Your task to perform on an android device: Open the calendar app, open the side menu, and click the "Day" option Image 0: 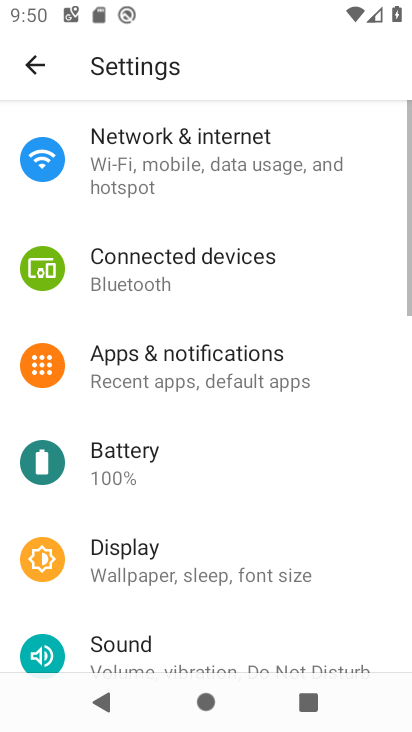
Step 0: press home button
Your task to perform on an android device: Open the calendar app, open the side menu, and click the "Day" option Image 1: 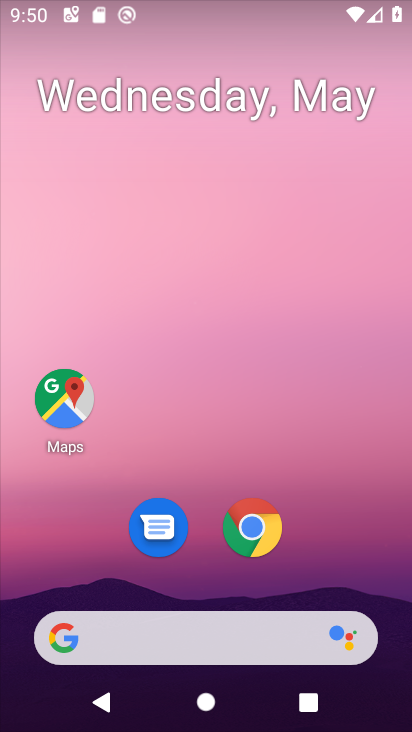
Step 1: drag from (318, 506) to (332, 104)
Your task to perform on an android device: Open the calendar app, open the side menu, and click the "Day" option Image 2: 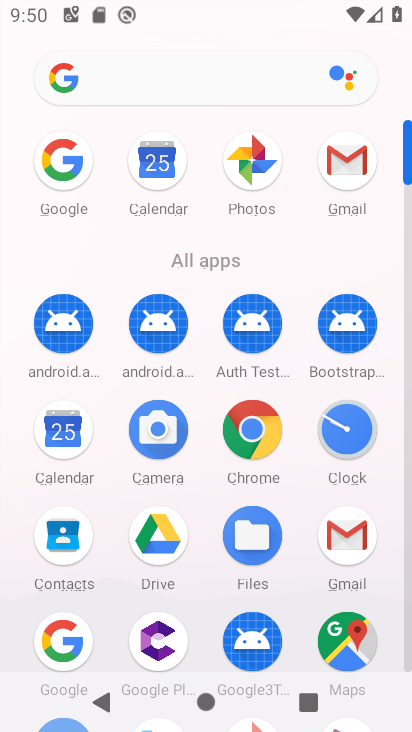
Step 2: click (54, 430)
Your task to perform on an android device: Open the calendar app, open the side menu, and click the "Day" option Image 3: 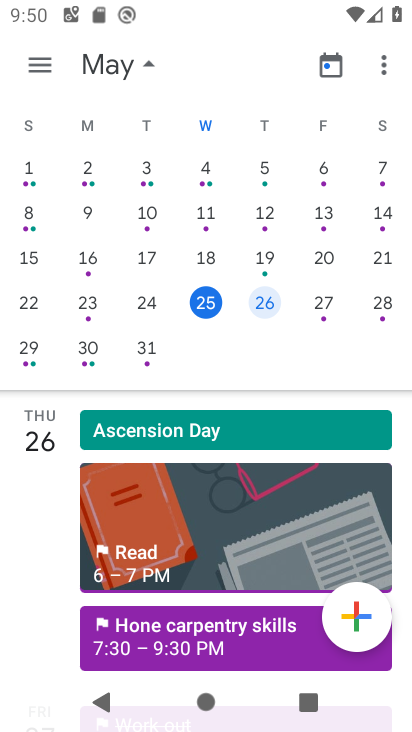
Step 3: drag from (45, 58) to (271, 128)
Your task to perform on an android device: Open the calendar app, open the side menu, and click the "Day" option Image 4: 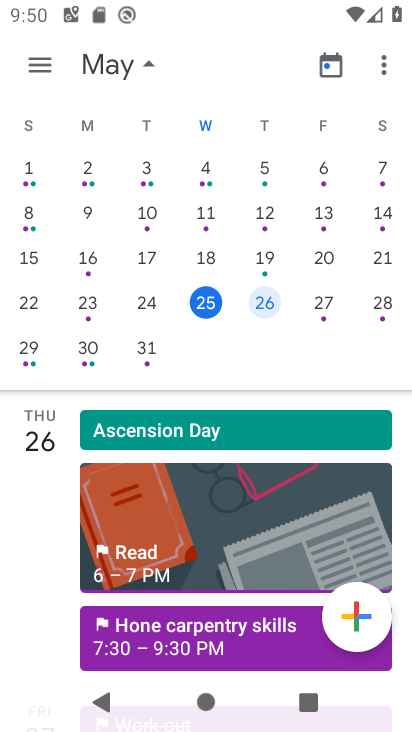
Step 4: click (206, 305)
Your task to perform on an android device: Open the calendar app, open the side menu, and click the "Day" option Image 5: 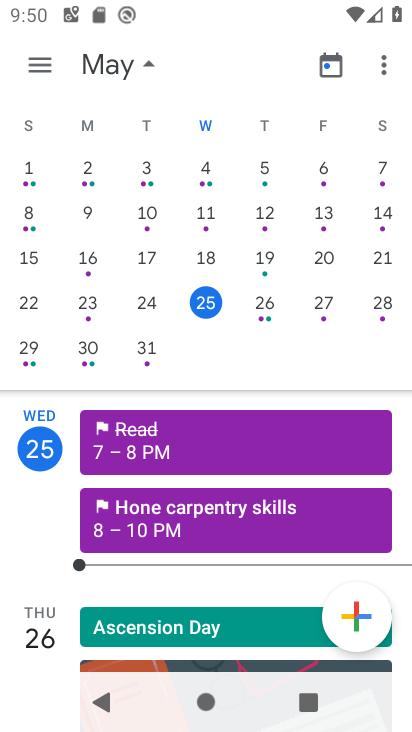
Step 5: click (35, 65)
Your task to perform on an android device: Open the calendar app, open the side menu, and click the "Day" option Image 6: 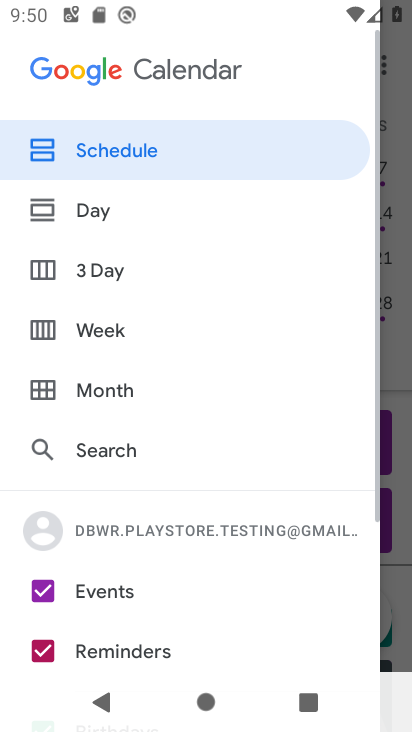
Step 6: click (111, 217)
Your task to perform on an android device: Open the calendar app, open the side menu, and click the "Day" option Image 7: 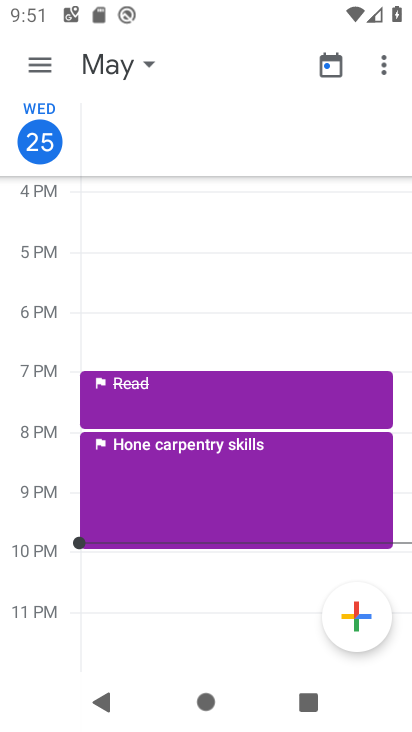
Step 7: task complete